Your task to perform on an android device: open device folders in google photos Image 0: 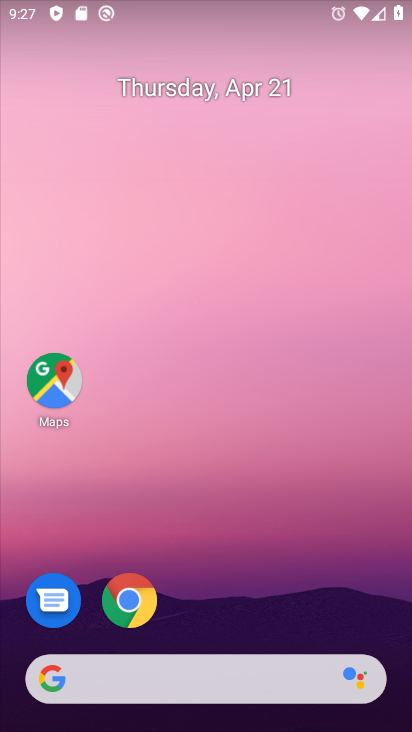
Step 0: drag from (198, 551) to (158, 60)
Your task to perform on an android device: open device folders in google photos Image 1: 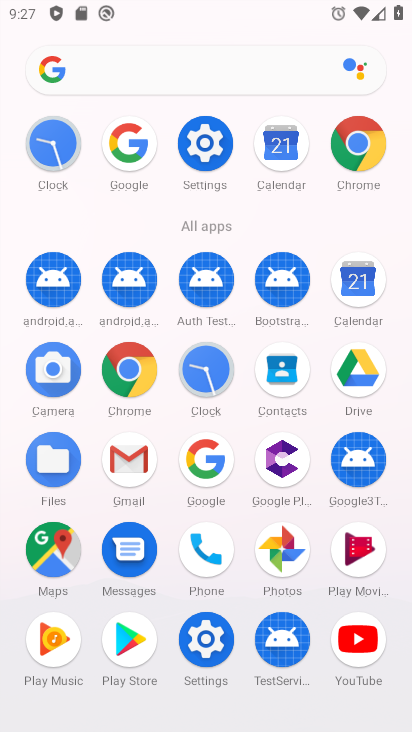
Step 1: click (282, 548)
Your task to perform on an android device: open device folders in google photos Image 2: 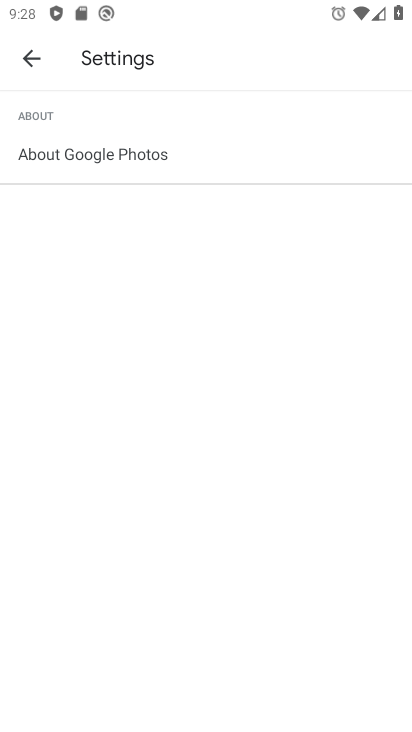
Step 2: task complete